Your task to perform on an android device: turn off sleep mode Image 0: 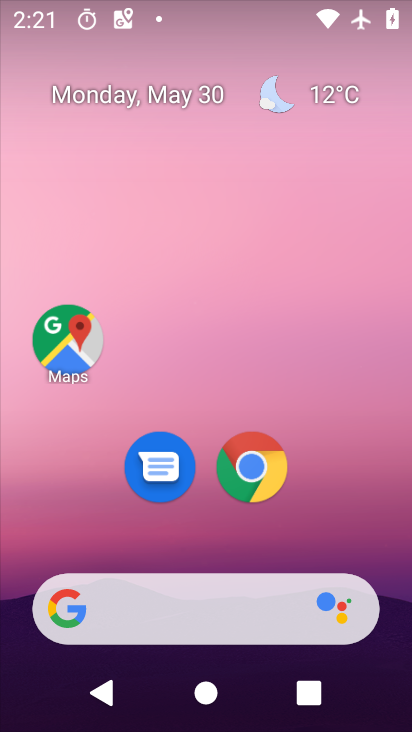
Step 0: drag from (391, 657) to (403, 267)
Your task to perform on an android device: turn off sleep mode Image 1: 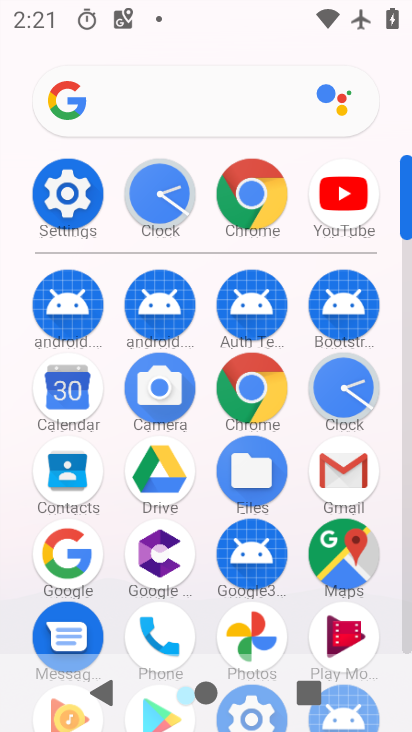
Step 1: click (30, 195)
Your task to perform on an android device: turn off sleep mode Image 2: 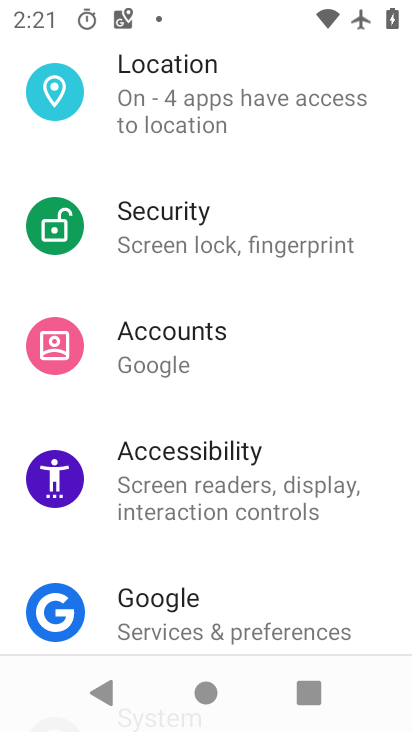
Step 2: drag from (341, 109) to (325, 496)
Your task to perform on an android device: turn off sleep mode Image 3: 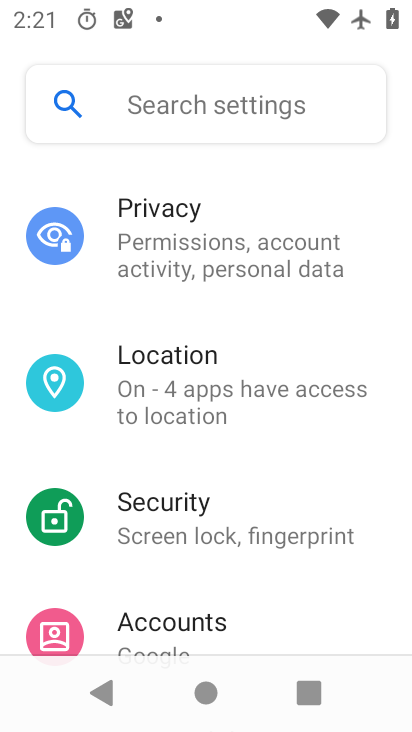
Step 3: drag from (337, 169) to (329, 532)
Your task to perform on an android device: turn off sleep mode Image 4: 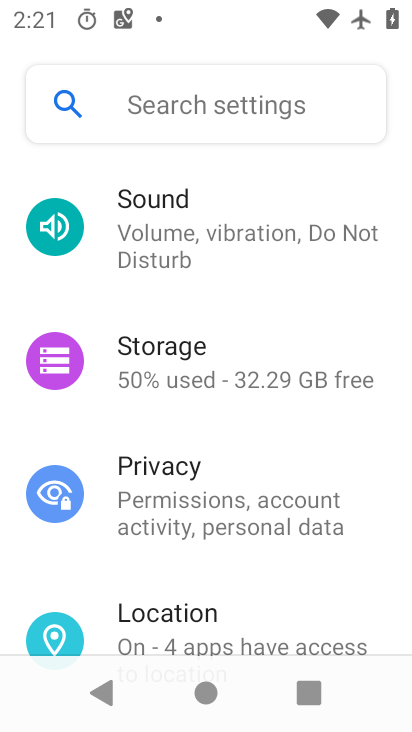
Step 4: drag from (362, 174) to (379, 571)
Your task to perform on an android device: turn off sleep mode Image 5: 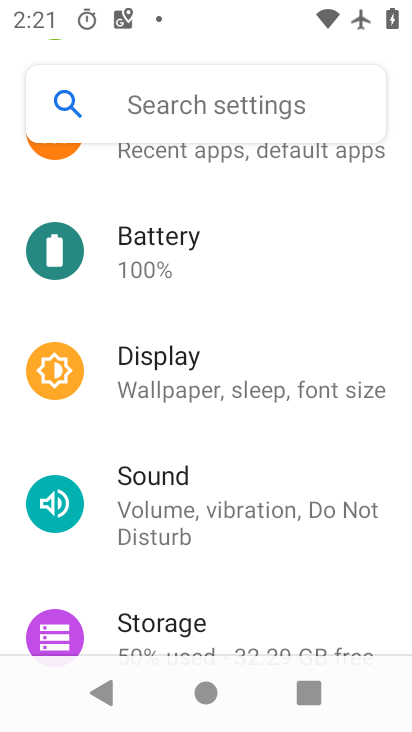
Step 5: drag from (362, 224) to (359, 577)
Your task to perform on an android device: turn off sleep mode Image 6: 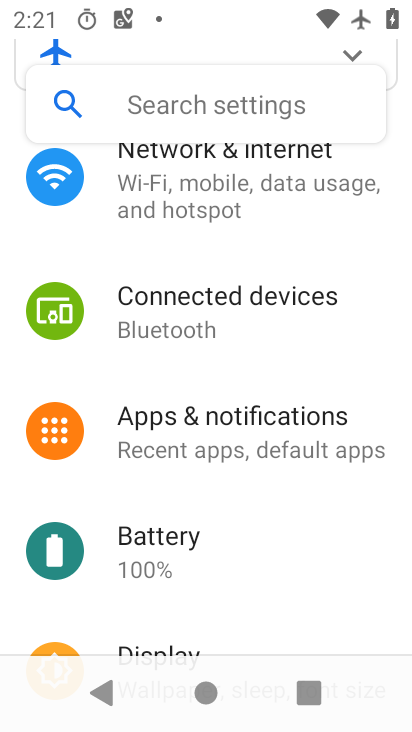
Step 6: click (225, 189)
Your task to perform on an android device: turn off sleep mode Image 7: 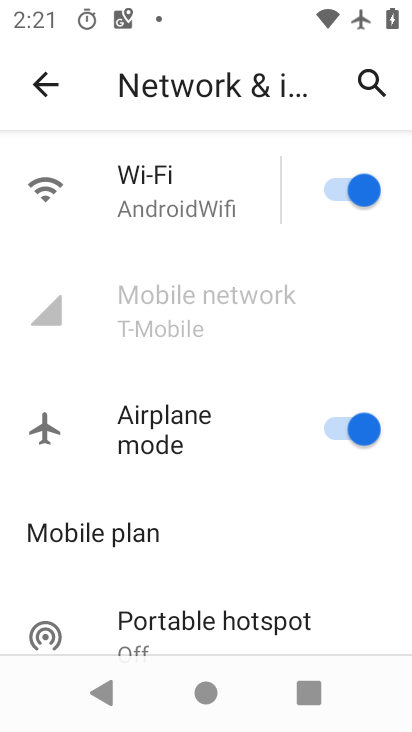
Step 7: click (307, 423)
Your task to perform on an android device: turn off sleep mode Image 8: 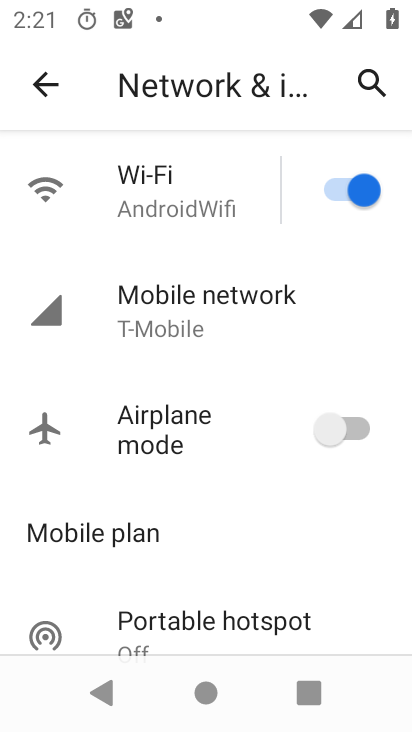
Step 8: click (32, 86)
Your task to perform on an android device: turn off sleep mode Image 9: 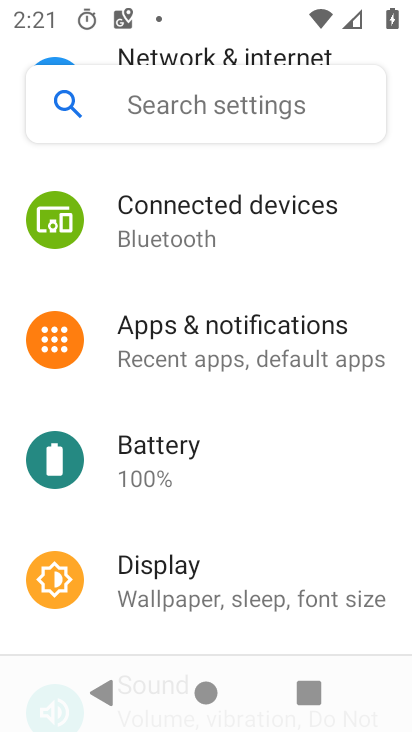
Step 9: click (158, 574)
Your task to perform on an android device: turn off sleep mode Image 10: 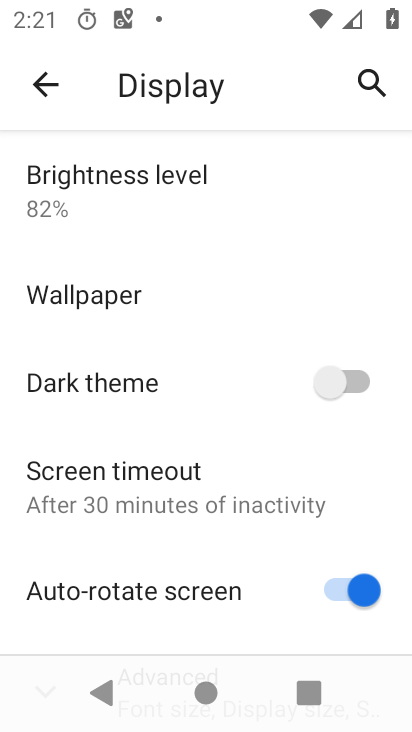
Step 10: drag from (191, 569) to (242, 293)
Your task to perform on an android device: turn off sleep mode Image 11: 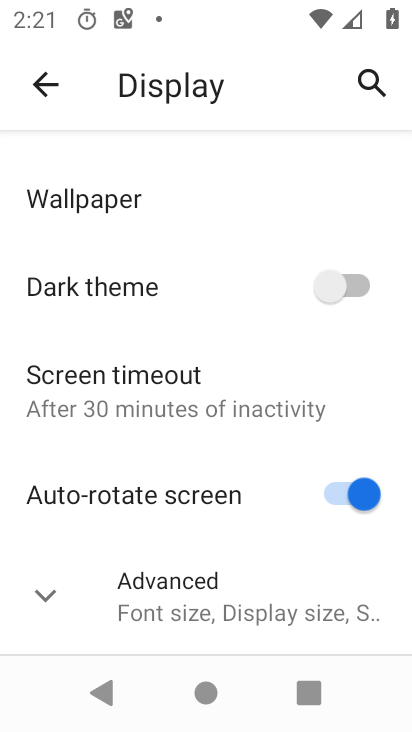
Step 11: click (76, 388)
Your task to perform on an android device: turn off sleep mode Image 12: 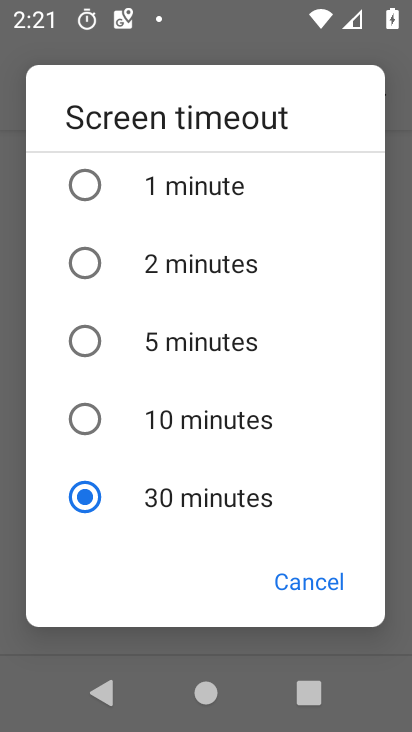
Step 12: task complete